Your task to perform on an android device: Open calendar and show me the first week of next month Image 0: 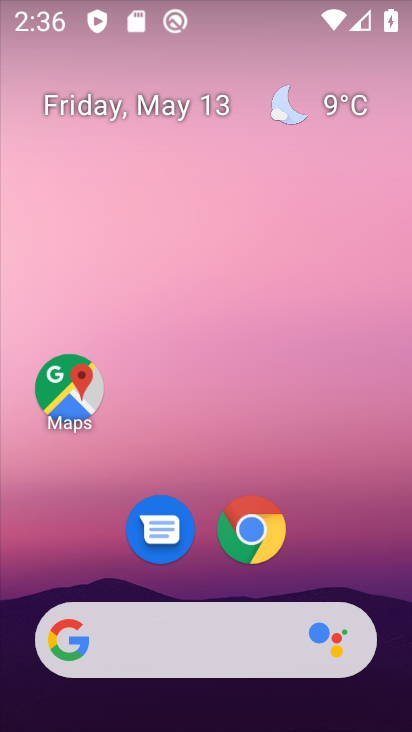
Step 0: drag from (115, 562) to (240, 93)
Your task to perform on an android device: Open calendar and show me the first week of next month Image 1: 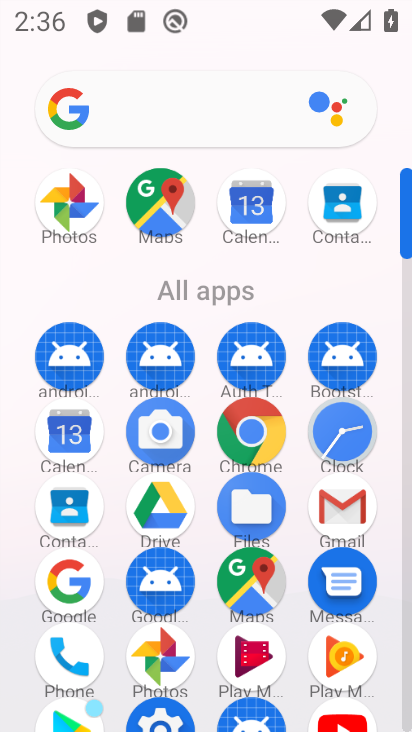
Step 1: click (84, 452)
Your task to perform on an android device: Open calendar and show me the first week of next month Image 2: 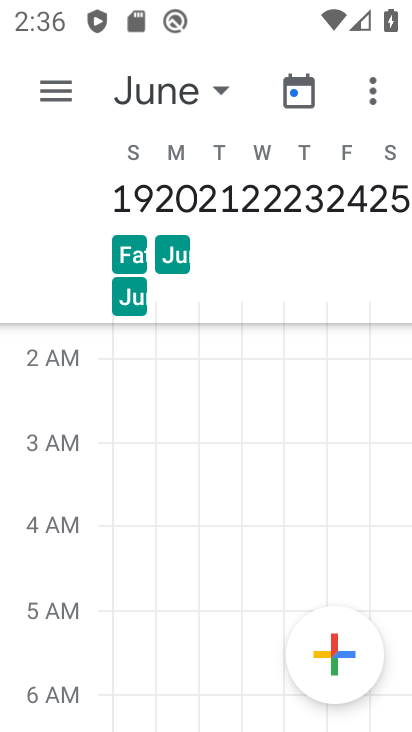
Step 2: click (190, 94)
Your task to perform on an android device: Open calendar and show me the first week of next month Image 3: 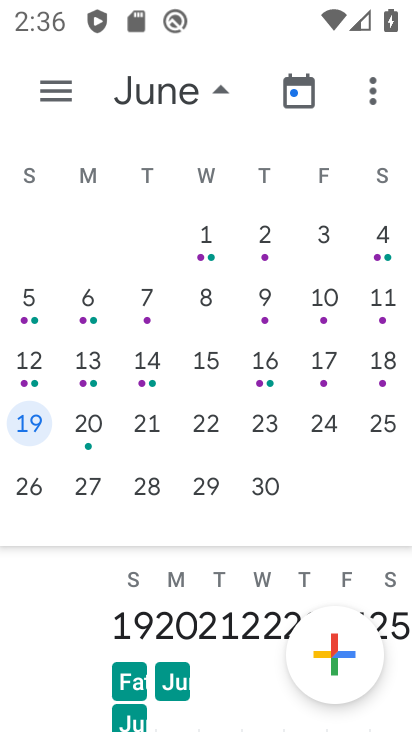
Step 3: click (39, 318)
Your task to perform on an android device: Open calendar and show me the first week of next month Image 4: 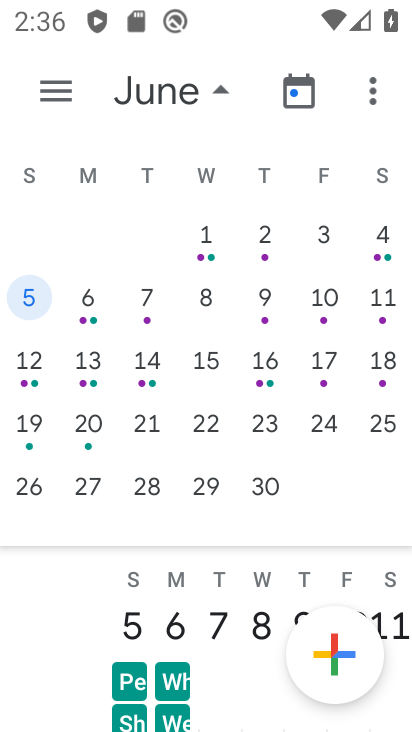
Step 4: click (219, 100)
Your task to perform on an android device: Open calendar and show me the first week of next month Image 5: 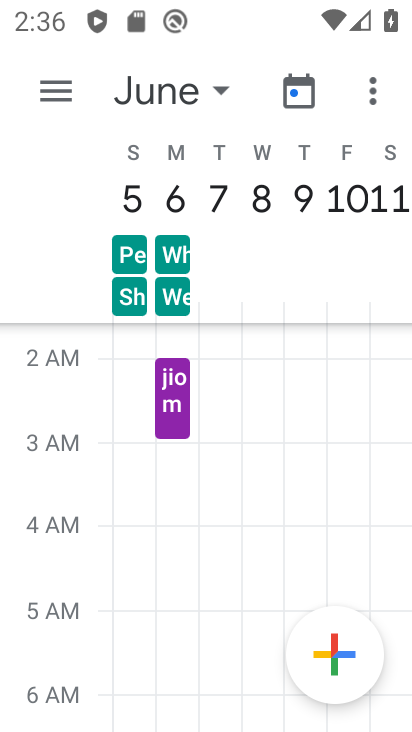
Step 5: task complete